Your task to perform on an android device: Show me popular videos on Youtube Image 0: 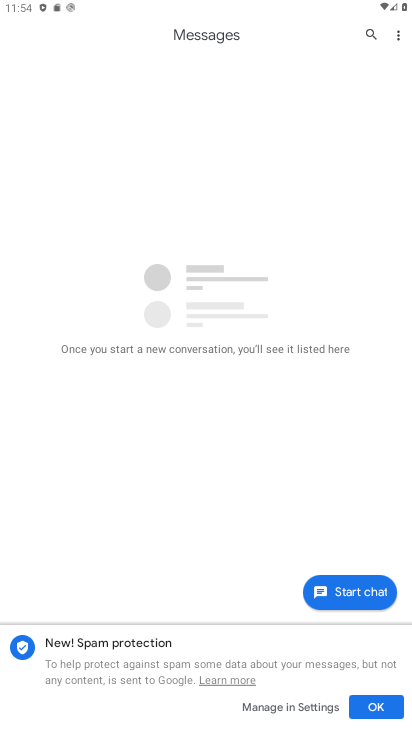
Step 0: press home button
Your task to perform on an android device: Show me popular videos on Youtube Image 1: 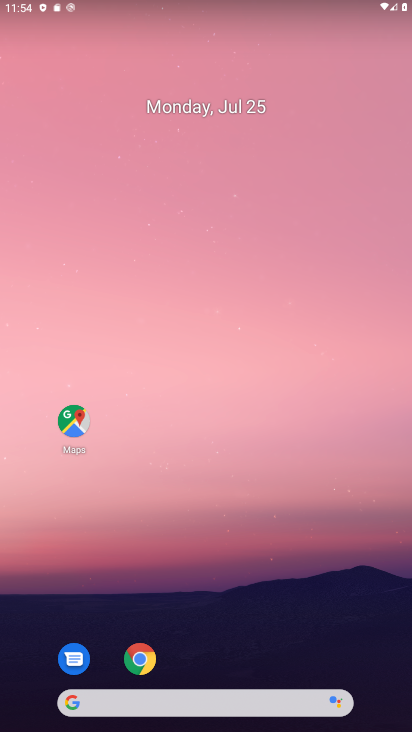
Step 1: drag from (286, 606) to (260, 27)
Your task to perform on an android device: Show me popular videos on Youtube Image 2: 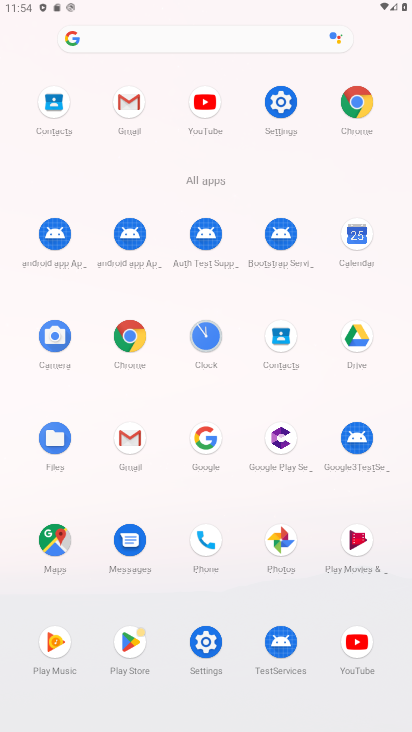
Step 2: click (357, 670)
Your task to perform on an android device: Show me popular videos on Youtube Image 3: 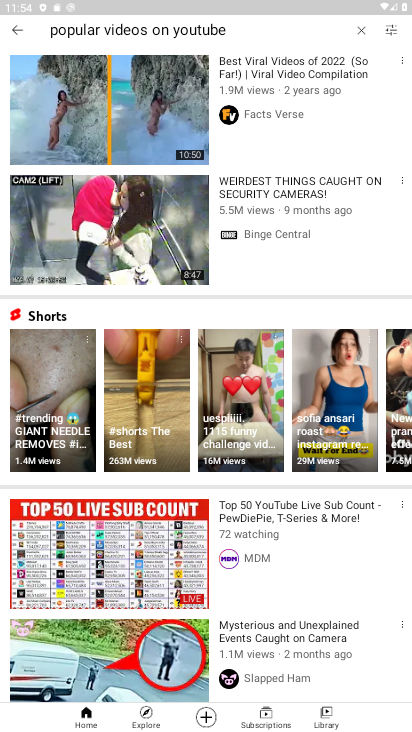
Step 3: task complete